Your task to perform on an android device: toggle translation in the chrome app Image 0: 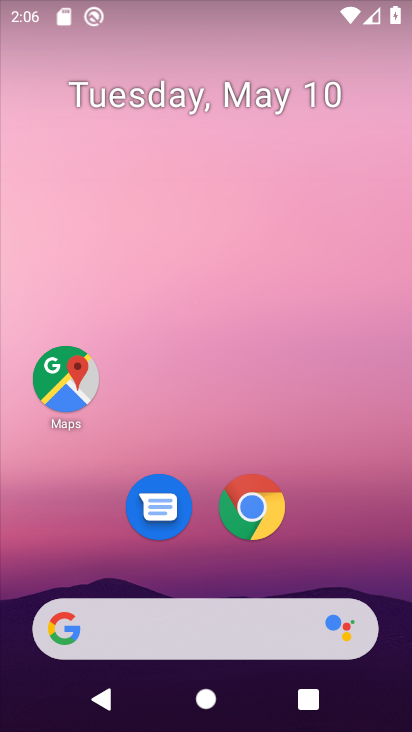
Step 0: click (238, 503)
Your task to perform on an android device: toggle translation in the chrome app Image 1: 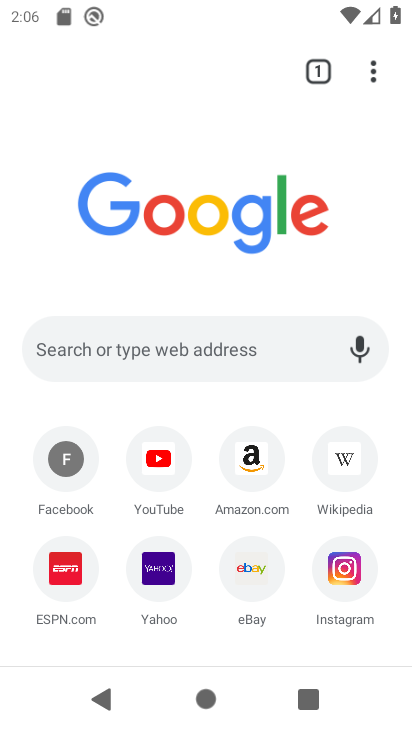
Step 1: click (371, 76)
Your task to perform on an android device: toggle translation in the chrome app Image 2: 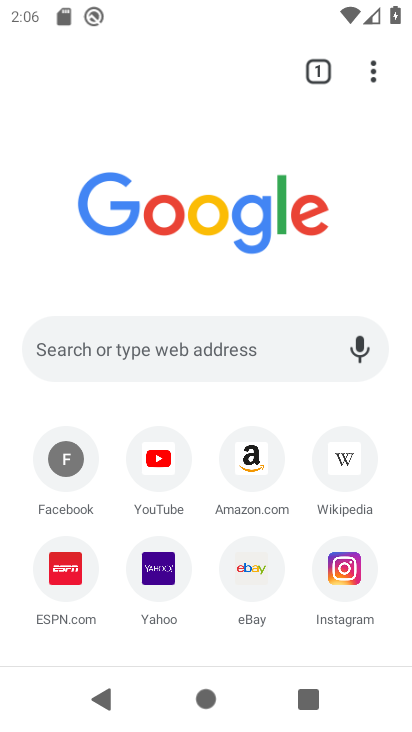
Step 2: click (373, 77)
Your task to perform on an android device: toggle translation in the chrome app Image 3: 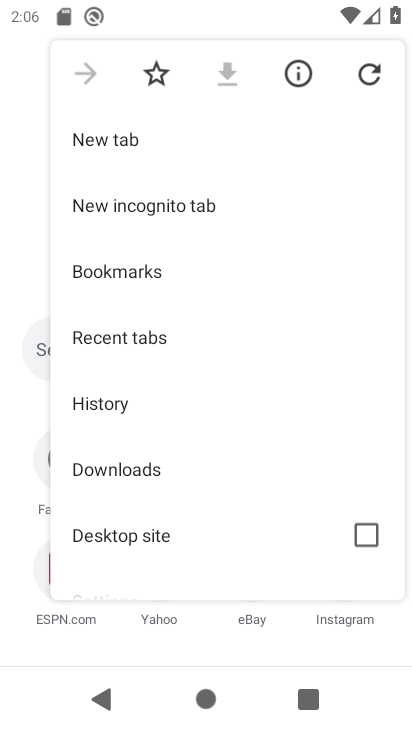
Step 3: drag from (176, 474) to (214, 251)
Your task to perform on an android device: toggle translation in the chrome app Image 4: 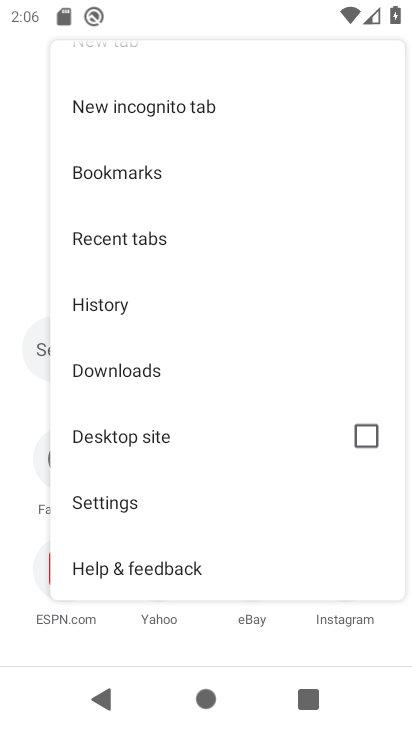
Step 4: click (100, 500)
Your task to perform on an android device: toggle translation in the chrome app Image 5: 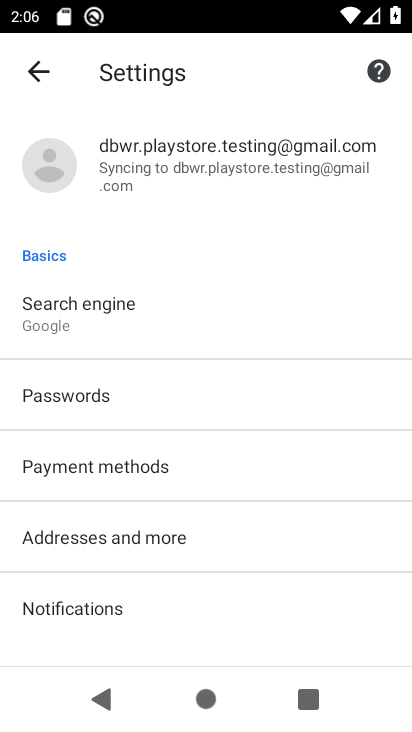
Step 5: drag from (159, 545) to (130, 173)
Your task to perform on an android device: toggle translation in the chrome app Image 6: 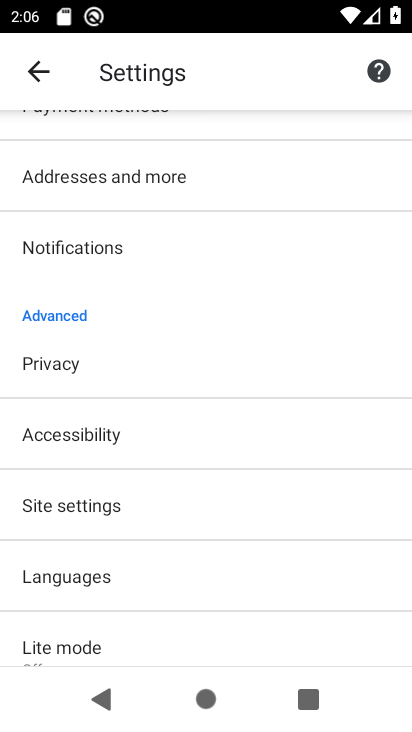
Step 6: drag from (184, 560) to (212, 347)
Your task to perform on an android device: toggle translation in the chrome app Image 7: 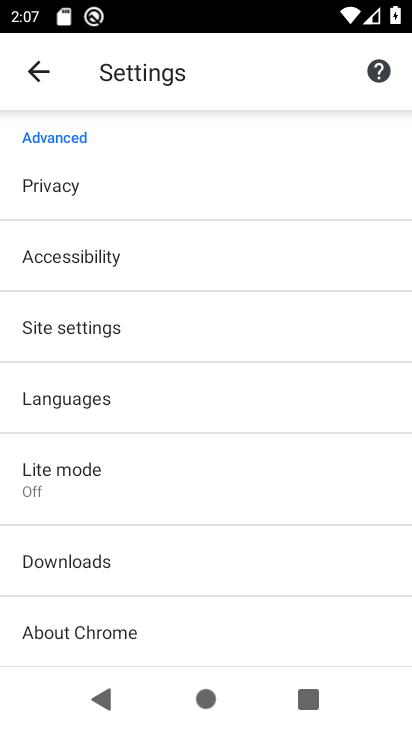
Step 7: click (81, 397)
Your task to perform on an android device: toggle translation in the chrome app Image 8: 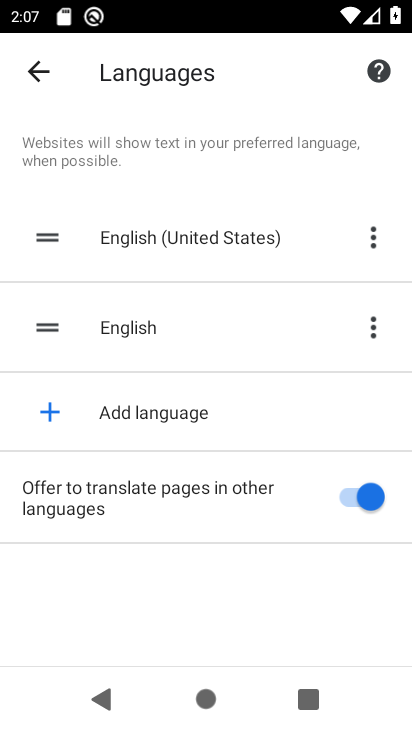
Step 8: click (340, 496)
Your task to perform on an android device: toggle translation in the chrome app Image 9: 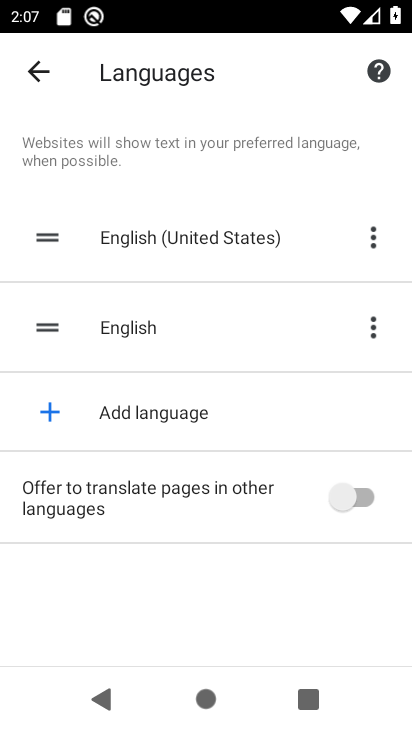
Step 9: task complete